Your task to perform on an android device: Open battery settings Image 0: 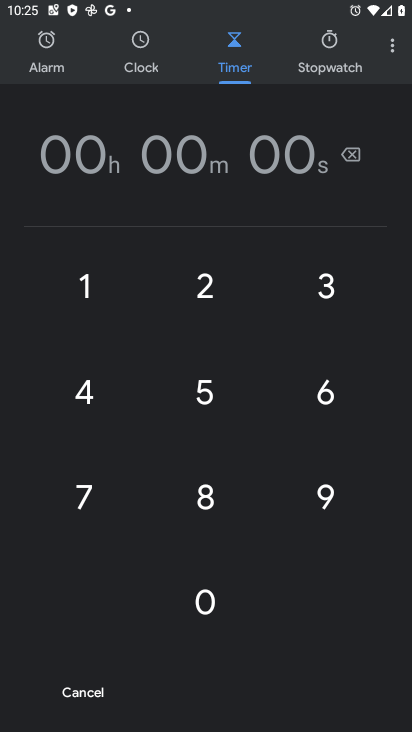
Step 0: press home button
Your task to perform on an android device: Open battery settings Image 1: 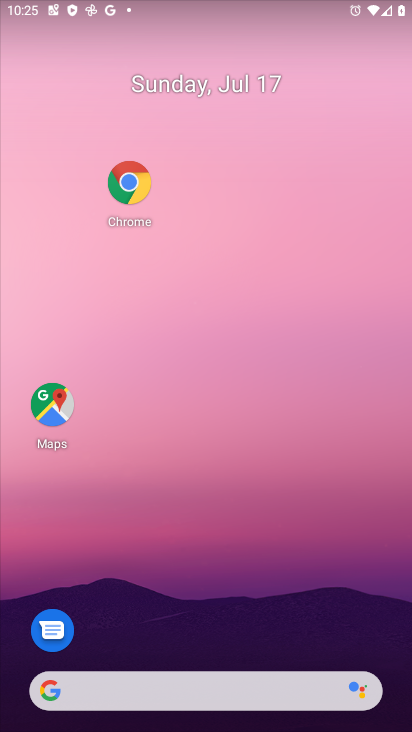
Step 1: drag from (165, 653) to (124, 204)
Your task to perform on an android device: Open battery settings Image 2: 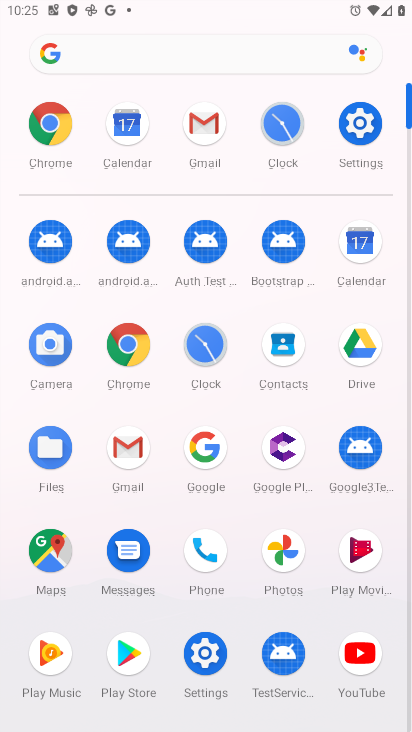
Step 2: click (361, 119)
Your task to perform on an android device: Open battery settings Image 3: 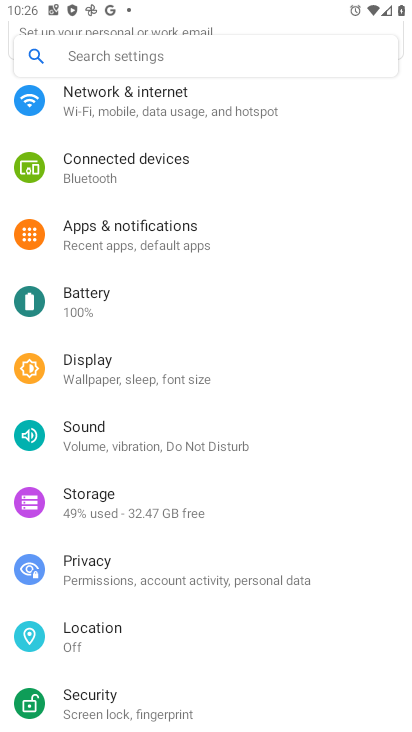
Step 3: click (76, 290)
Your task to perform on an android device: Open battery settings Image 4: 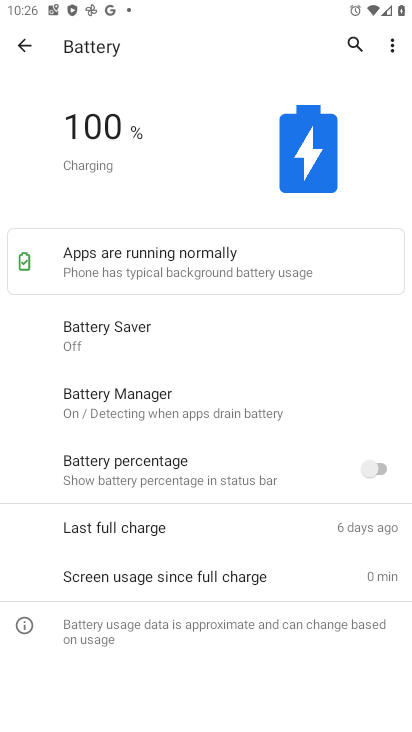
Step 4: task complete